Your task to perform on an android device: Open network settings Image 0: 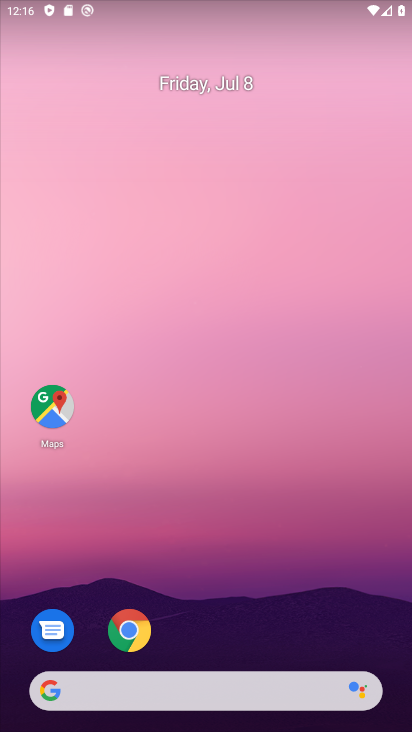
Step 0: drag from (385, 658) to (201, 58)
Your task to perform on an android device: Open network settings Image 1: 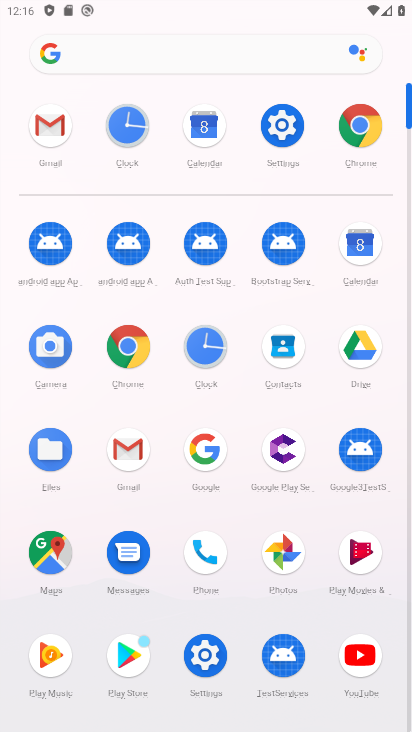
Step 1: click (186, 656)
Your task to perform on an android device: Open network settings Image 2: 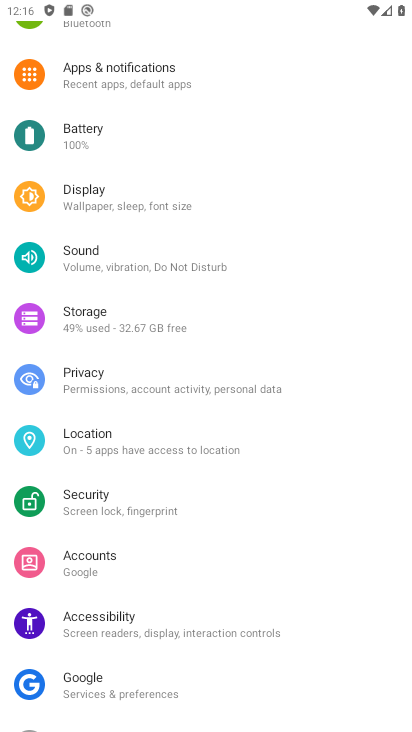
Step 2: drag from (134, 101) to (170, 660)
Your task to perform on an android device: Open network settings Image 3: 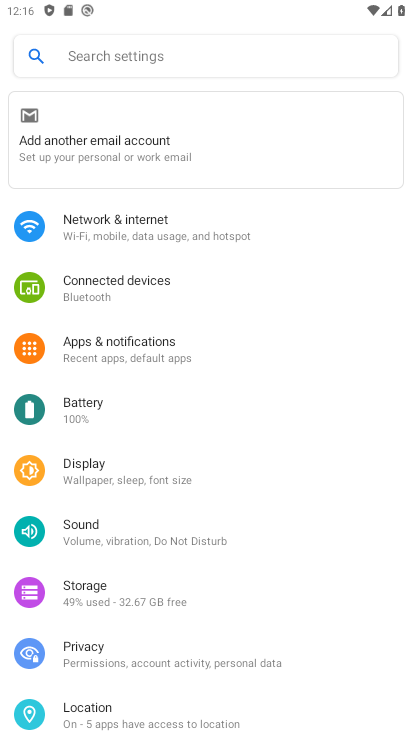
Step 3: click (188, 222)
Your task to perform on an android device: Open network settings Image 4: 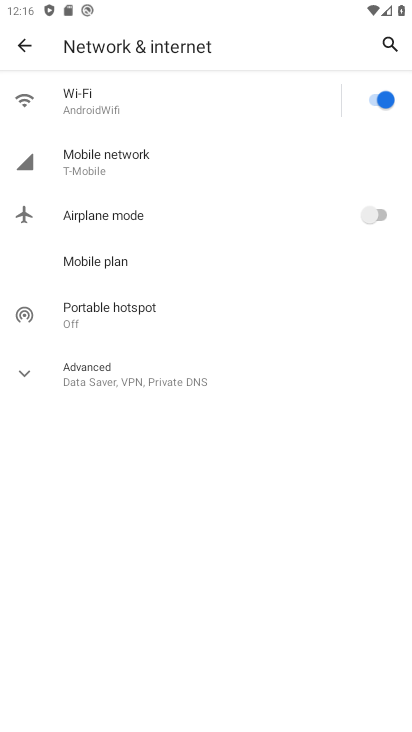
Step 4: task complete